Your task to perform on an android device: clear all cookies in the chrome app Image 0: 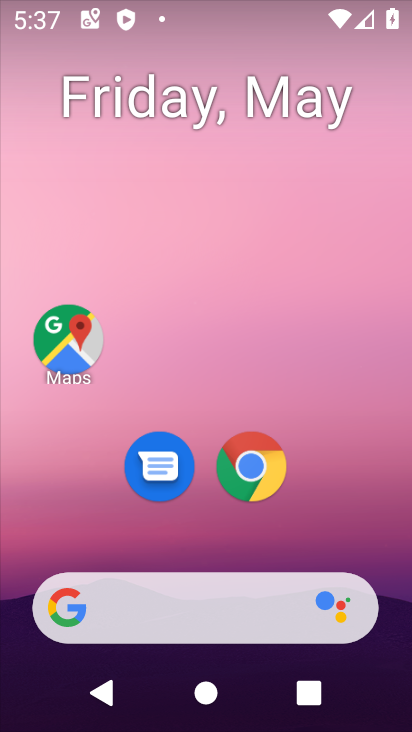
Step 0: drag from (332, 471) to (243, 3)
Your task to perform on an android device: clear all cookies in the chrome app Image 1: 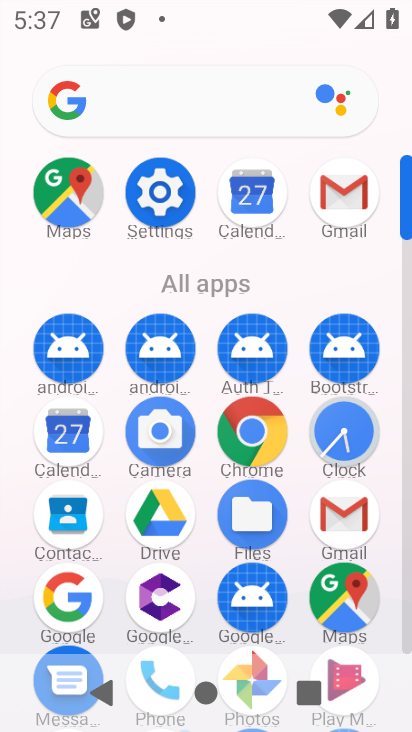
Step 1: drag from (22, 573) to (30, 223)
Your task to perform on an android device: clear all cookies in the chrome app Image 2: 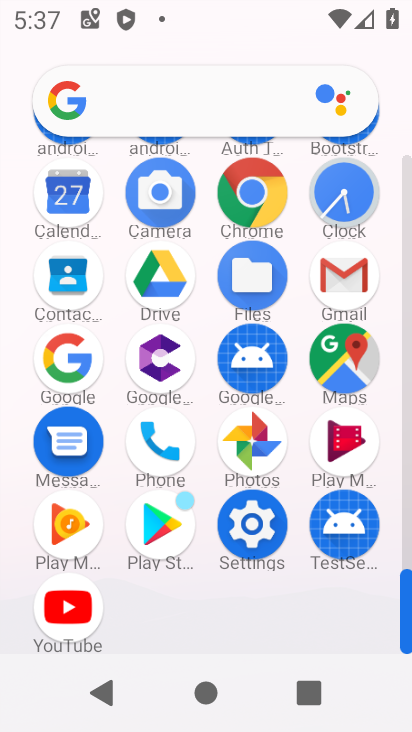
Step 2: click (252, 191)
Your task to perform on an android device: clear all cookies in the chrome app Image 3: 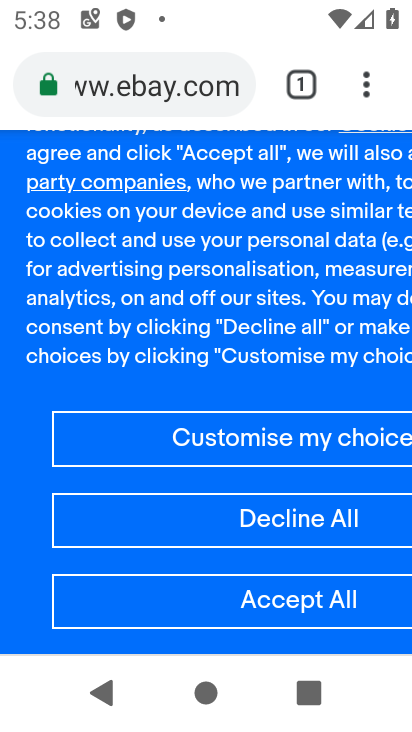
Step 3: drag from (368, 78) to (103, 510)
Your task to perform on an android device: clear all cookies in the chrome app Image 4: 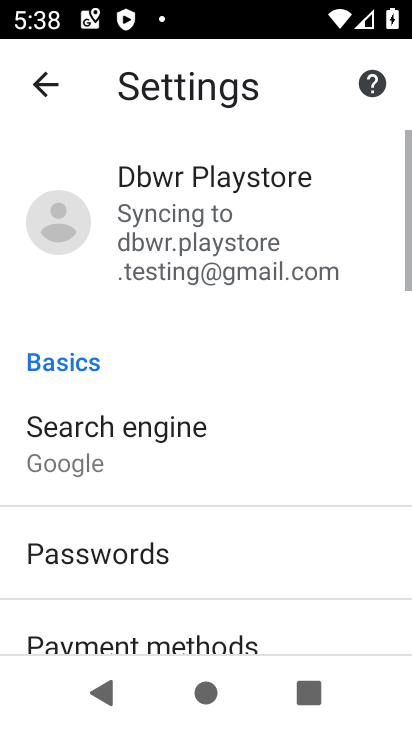
Step 4: drag from (222, 562) to (281, 144)
Your task to perform on an android device: clear all cookies in the chrome app Image 5: 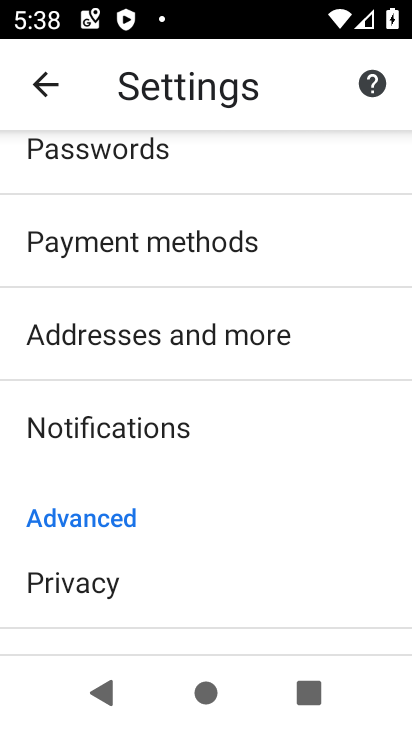
Step 5: drag from (228, 567) to (227, 121)
Your task to perform on an android device: clear all cookies in the chrome app Image 6: 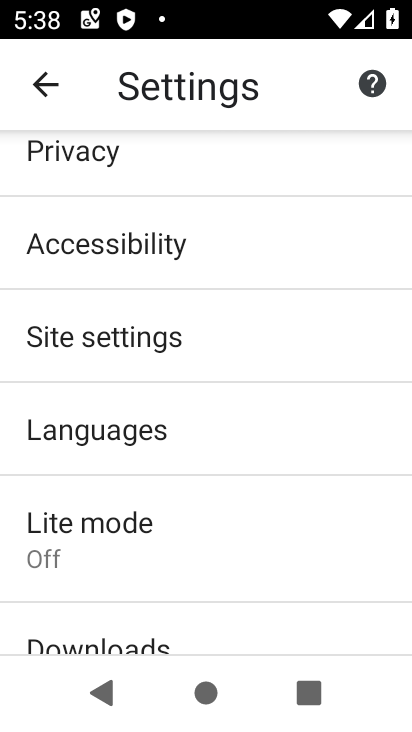
Step 6: drag from (186, 607) to (223, 132)
Your task to perform on an android device: clear all cookies in the chrome app Image 7: 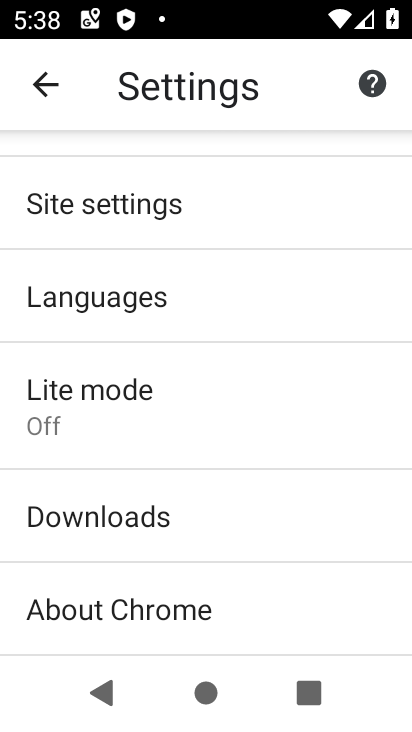
Step 7: drag from (157, 579) to (227, 157)
Your task to perform on an android device: clear all cookies in the chrome app Image 8: 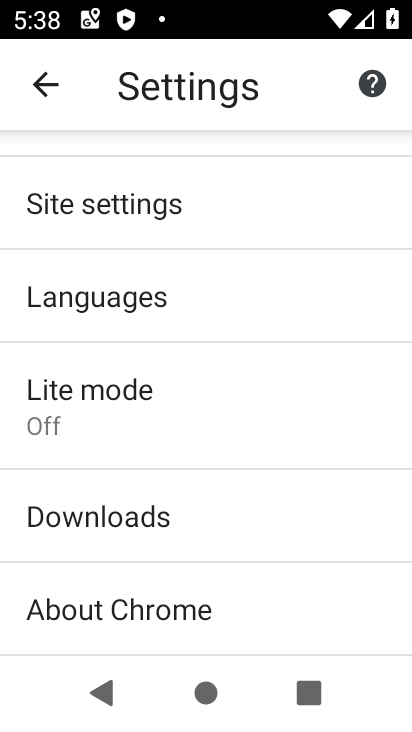
Step 8: drag from (216, 256) to (244, 158)
Your task to perform on an android device: clear all cookies in the chrome app Image 9: 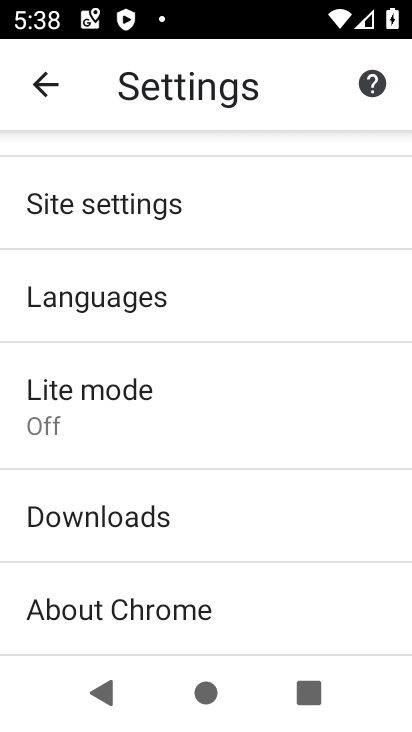
Step 9: click (131, 204)
Your task to perform on an android device: clear all cookies in the chrome app Image 10: 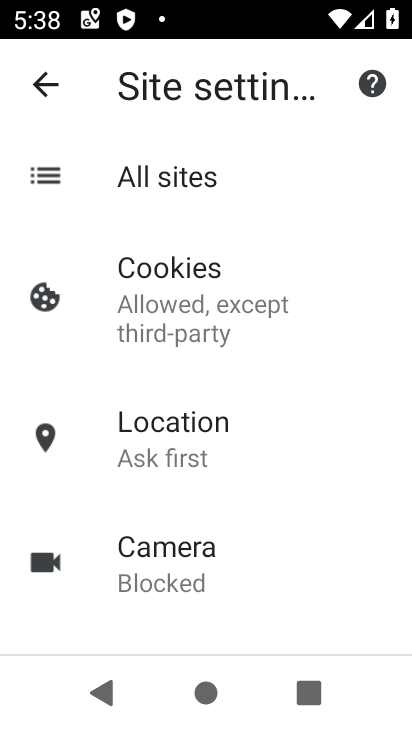
Step 10: drag from (239, 521) to (254, 143)
Your task to perform on an android device: clear all cookies in the chrome app Image 11: 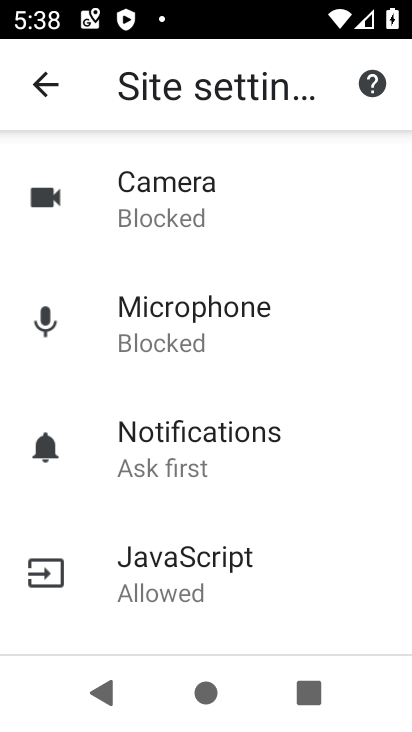
Step 11: drag from (221, 531) to (236, 160)
Your task to perform on an android device: clear all cookies in the chrome app Image 12: 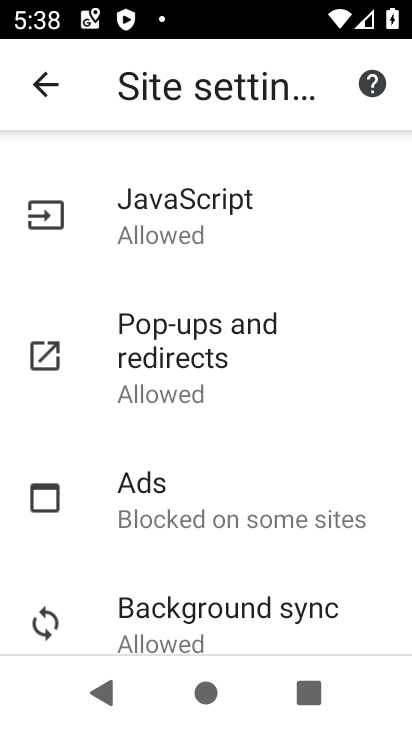
Step 12: drag from (234, 592) to (255, 91)
Your task to perform on an android device: clear all cookies in the chrome app Image 13: 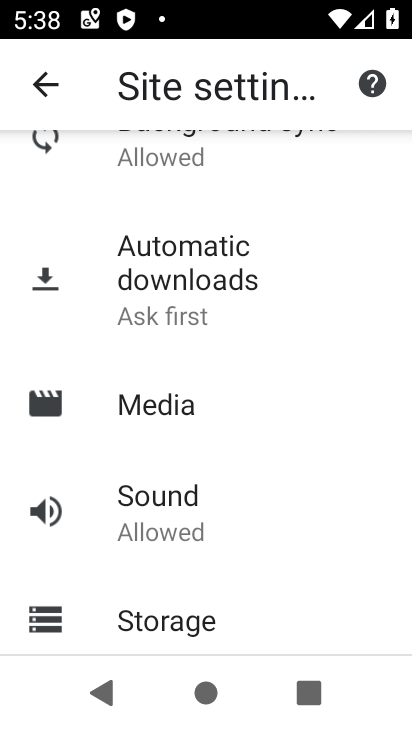
Step 13: drag from (241, 539) to (236, 106)
Your task to perform on an android device: clear all cookies in the chrome app Image 14: 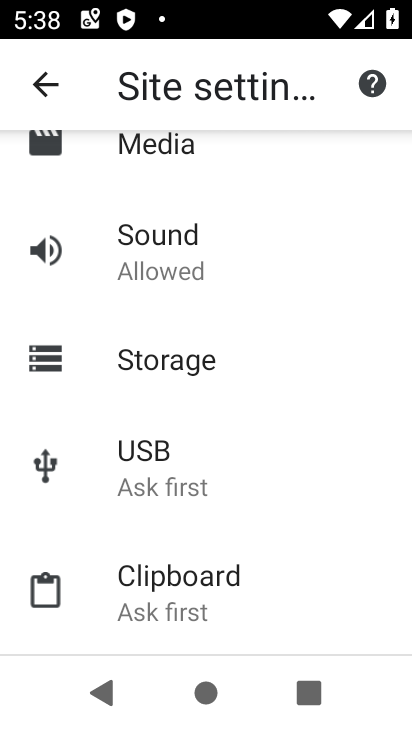
Step 14: drag from (207, 554) to (209, 71)
Your task to perform on an android device: clear all cookies in the chrome app Image 15: 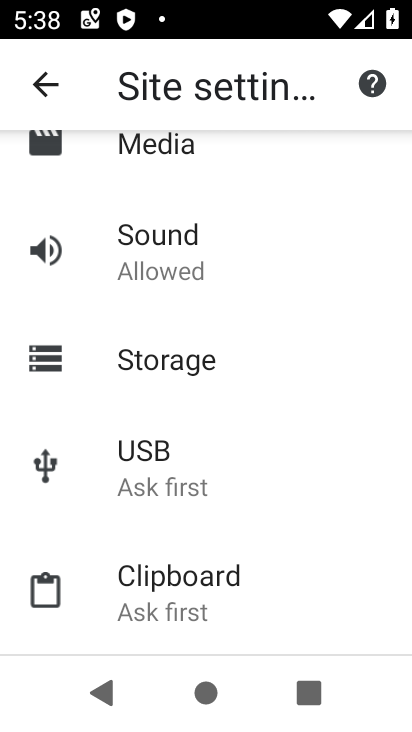
Step 15: click (36, 74)
Your task to perform on an android device: clear all cookies in the chrome app Image 16: 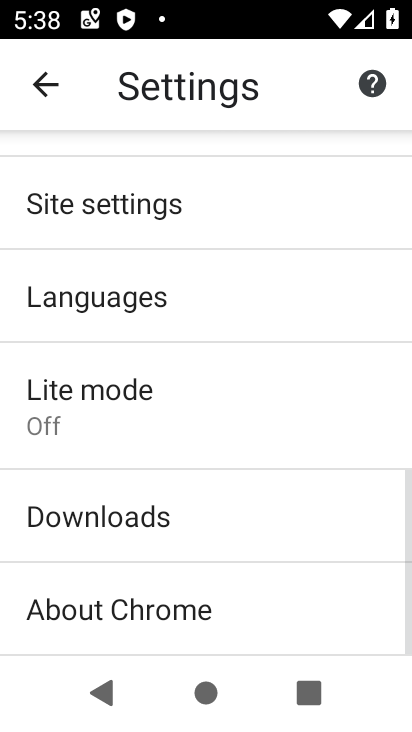
Step 16: drag from (228, 195) to (231, 605)
Your task to perform on an android device: clear all cookies in the chrome app Image 17: 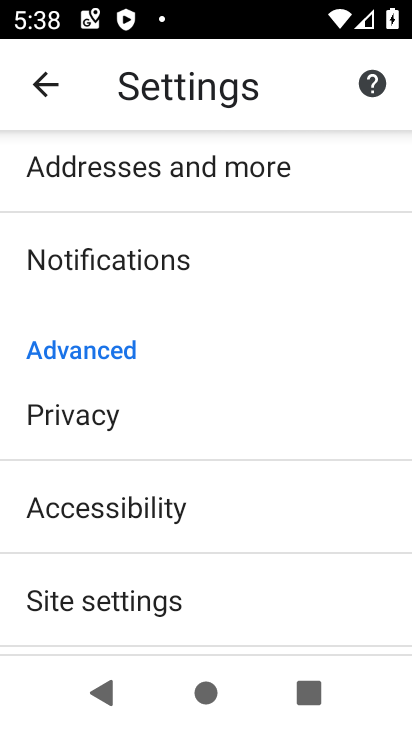
Step 17: drag from (210, 245) to (224, 611)
Your task to perform on an android device: clear all cookies in the chrome app Image 18: 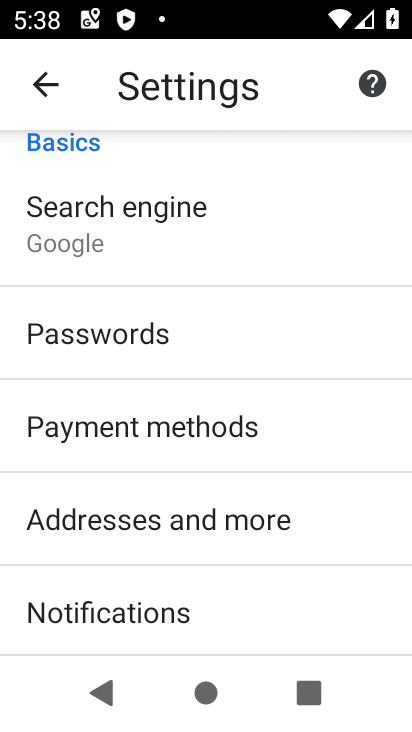
Step 18: drag from (227, 278) to (227, 620)
Your task to perform on an android device: clear all cookies in the chrome app Image 19: 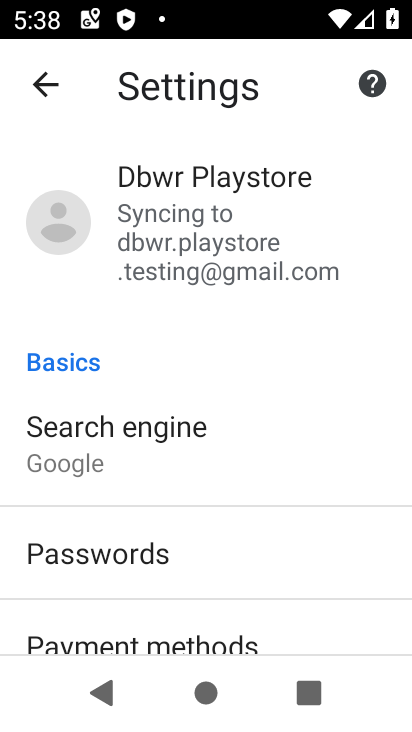
Step 19: drag from (235, 534) to (216, 108)
Your task to perform on an android device: clear all cookies in the chrome app Image 20: 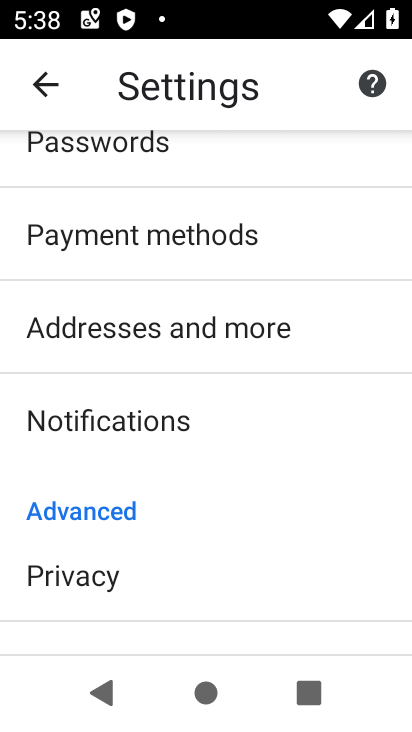
Step 20: drag from (238, 553) to (240, 227)
Your task to perform on an android device: clear all cookies in the chrome app Image 21: 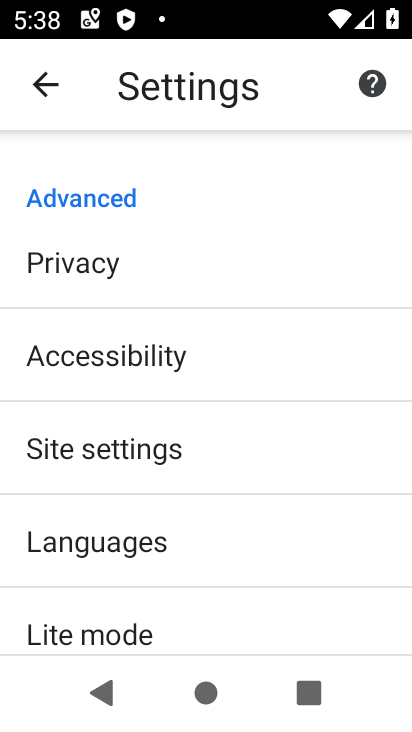
Step 21: click (139, 252)
Your task to perform on an android device: clear all cookies in the chrome app Image 22: 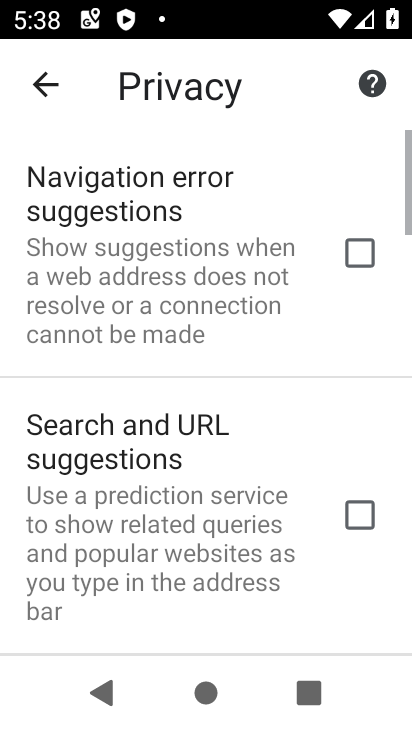
Step 22: drag from (184, 593) to (226, 179)
Your task to perform on an android device: clear all cookies in the chrome app Image 23: 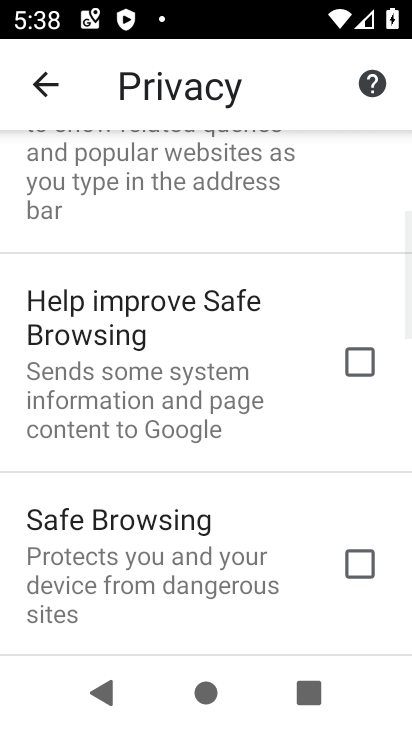
Step 23: drag from (199, 564) to (210, 109)
Your task to perform on an android device: clear all cookies in the chrome app Image 24: 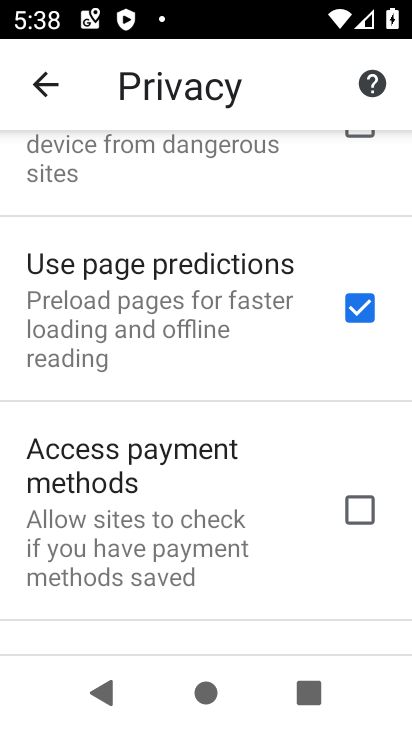
Step 24: drag from (206, 562) to (220, 107)
Your task to perform on an android device: clear all cookies in the chrome app Image 25: 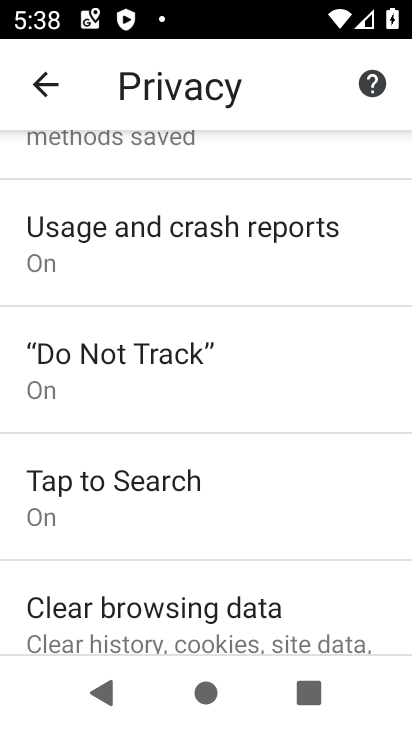
Step 25: drag from (157, 597) to (205, 168)
Your task to perform on an android device: clear all cookies in the chrome app Image 26: 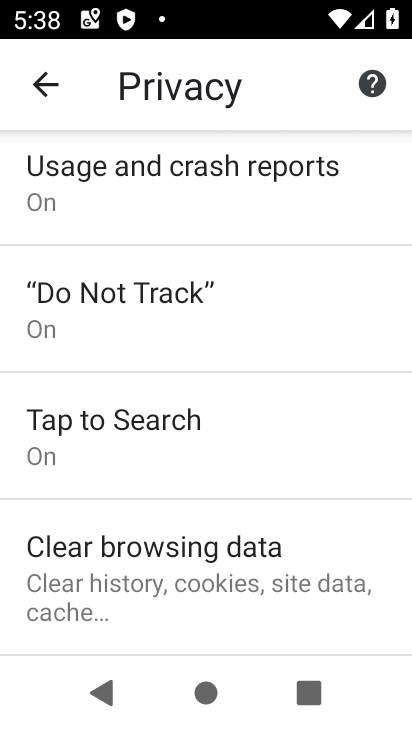
Step 26: click (158, 530)
Your task to perform on an android device: clear all cookies in the chrome app Image 27: 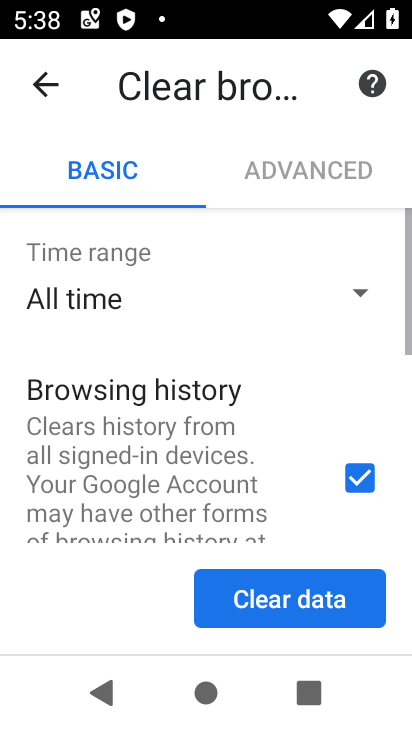
Step 27: drag from (229, 424) to (233, 225)
Your task to perform on an android device: clear all cookies in the chrome app Image 28: 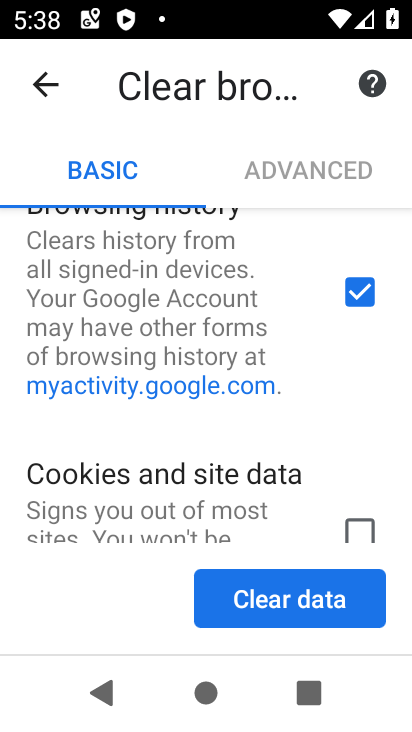
Step 28: click (360, 525)
Your task to perform on an android device: clear all cookies in the chrome app Image 29: 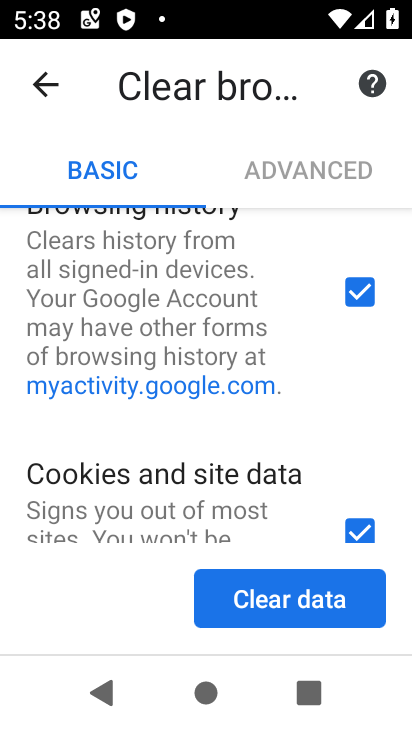
Step 29: click (352, 286)
Your task to perform on an android device: clear all cookies in the chrome app Image 30: 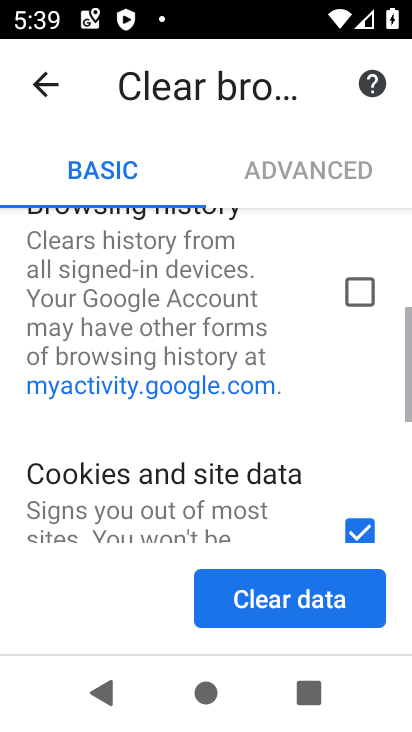
Step 30: click (258, 601)
Your task to perform on an android device: clear all cookies in the chrome app Image 31: 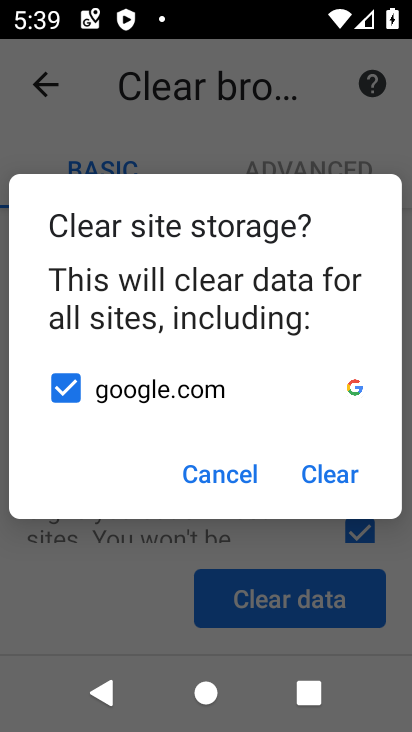
Step 31: click (312, 479)
Your task to perform on an android device: clear all cookies in the chrome app Image 32: 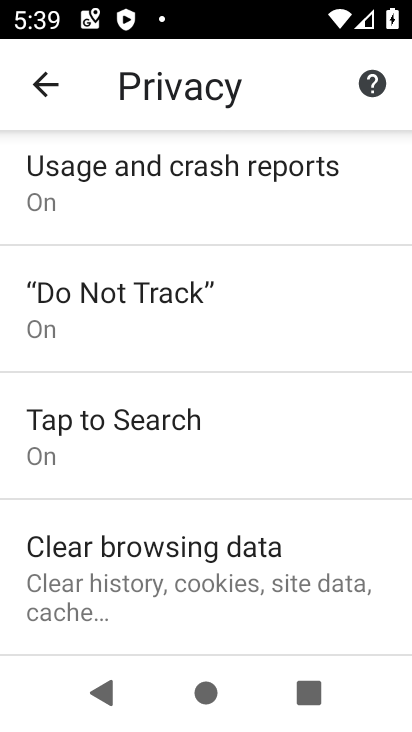
Step 32: task complete